Your task to perform on an android device: Open Google Chrome and click the shortcut for Amazon.com Image 0: 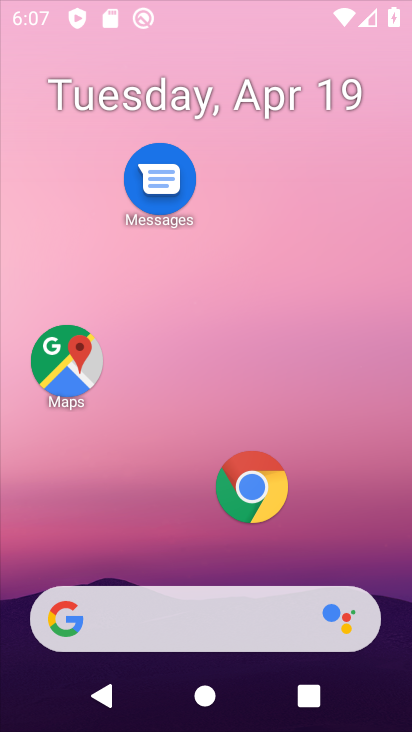
Step 0: click (208, 61)
Your task to perform on an android device: Open Google Chrome and click the shortcut for Amazon.com Image 1: 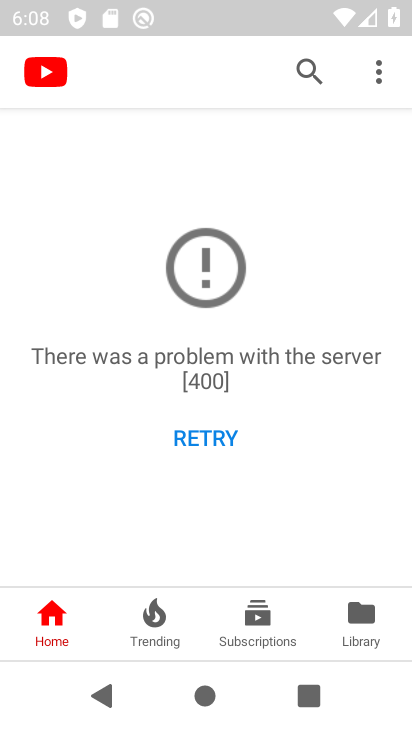
Step 1: press home button
Your task to perform on an android device: Open Google Chrome and click the shortcut for Amazon.com Image 2: 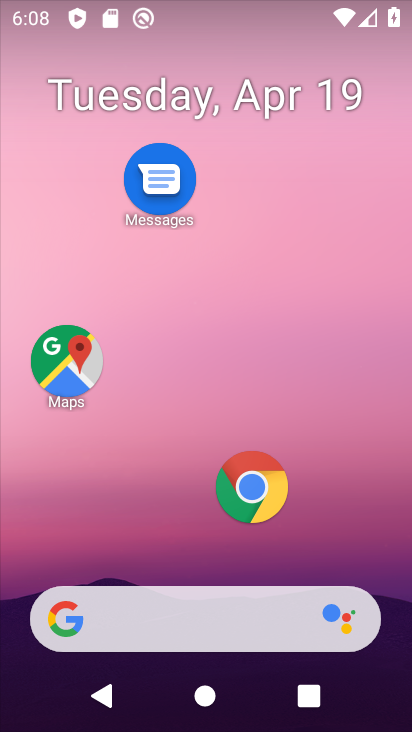
Step 2: click (252, 479)
Your task to perform on an android device: Open Google Chrome and click the shortcut for Amazon.com Image 3: 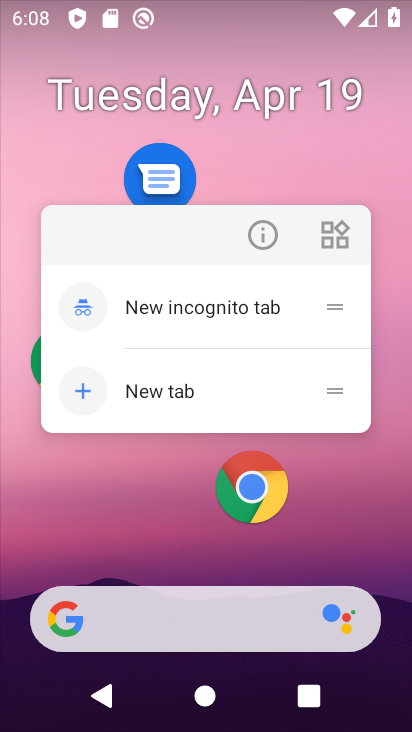
Step 3: click (252, 479)
Your task to perform on an android device: Open Google Chrome and click the shortcut for Amazon.com Image 4: 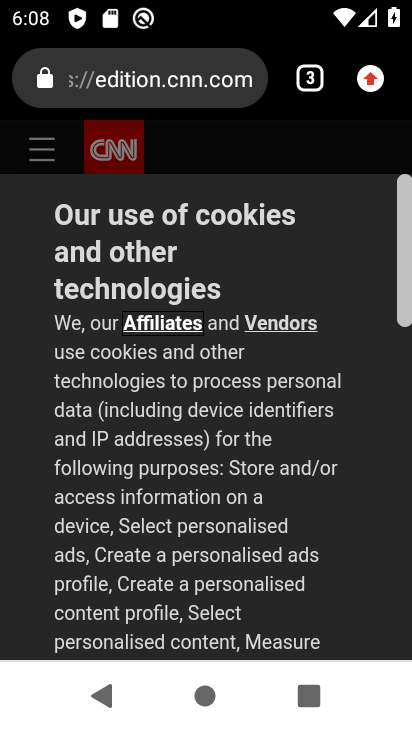
Step 4: click (305, 87)
Your task to perform on an android device: Open Google Chrome and click the shortcut for Amazon.com Image 5: 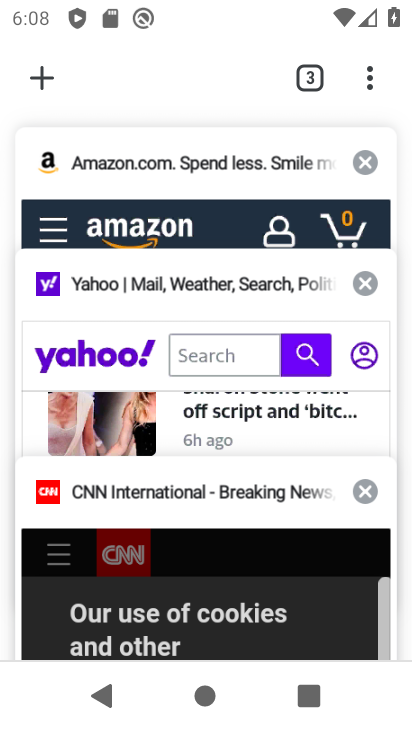
Step 5: click (281, 162)
Your task to perform on an android device: Open Google Chrome and click the shortcut for Amazon.com Image 6: 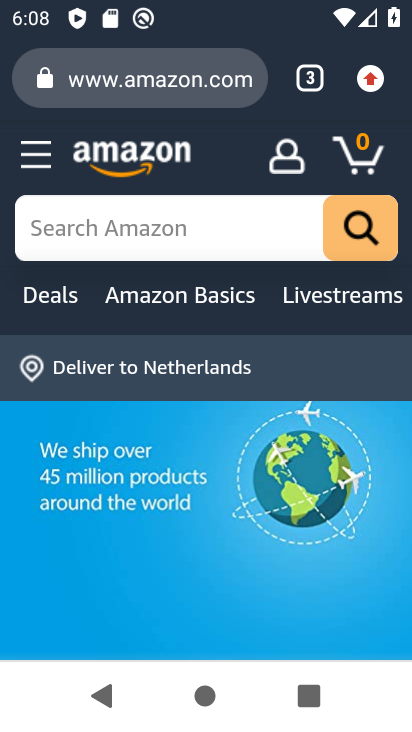
Step 6: task complete